Your task to perform on an android device: change the upload size in google photos Image 0: 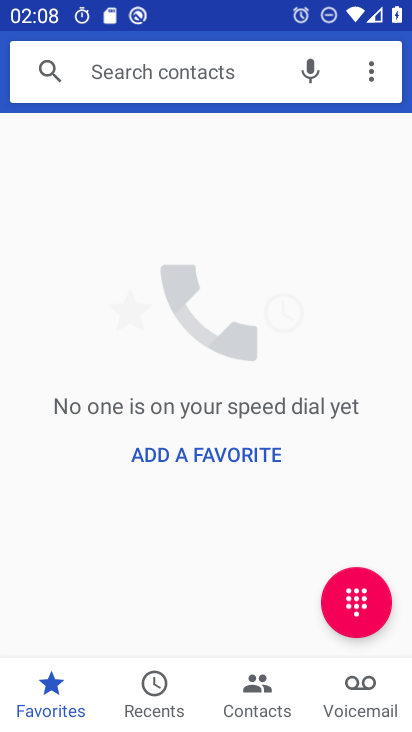
Step 0: press home button
Your task to perform on an android device: change the upload size in google photos Image 1: 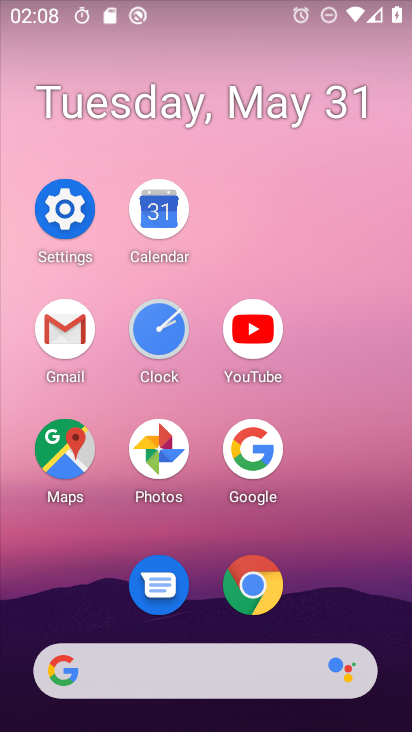
Step 1: click (150, 444)
Your task to perform on an android device: change the upload size in google photos Image 2: 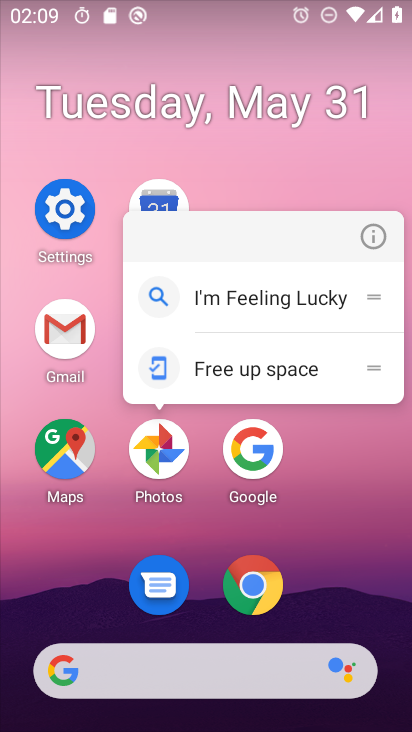
Step 2: click (147, 460)
Your task to perform on an android device: change the upload size in google photos Image 3: 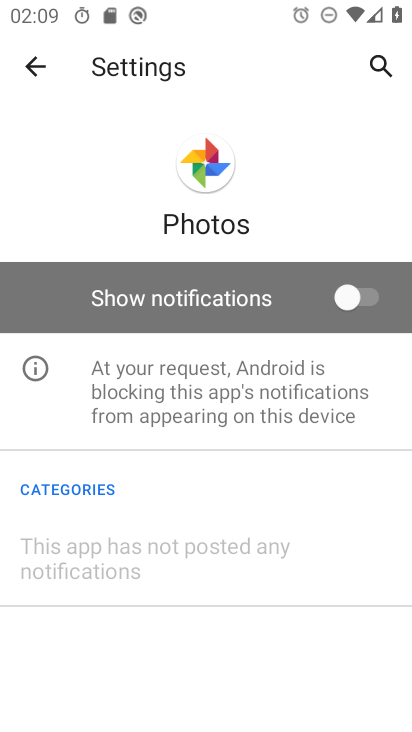
Step 3: click (36, 81)
Your task to perform on an android device: change the upload size in google photos Image 4: 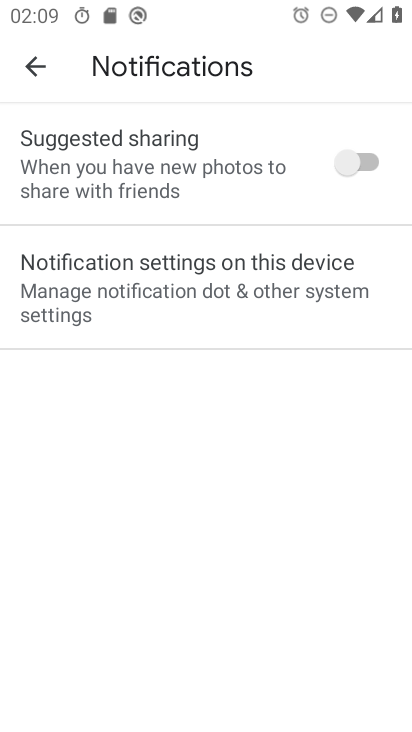
Step 4: click (27, 97)
Your task to perform on an android device: change the upload size in google photos Image 5: 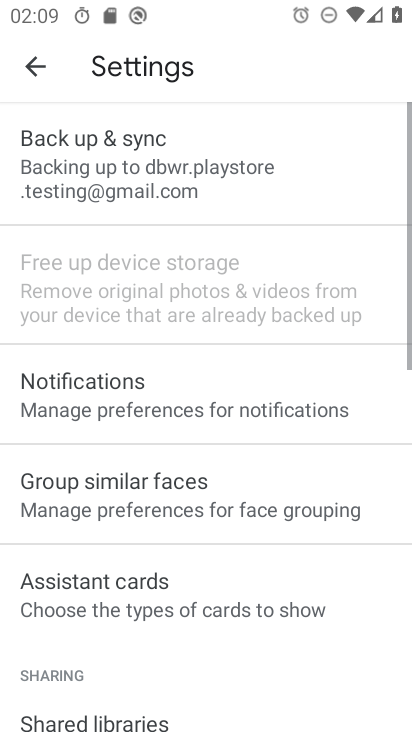
Step 5: click (157, 159)
Your task to perform on an android device: change the upload size in google photos Image 6: 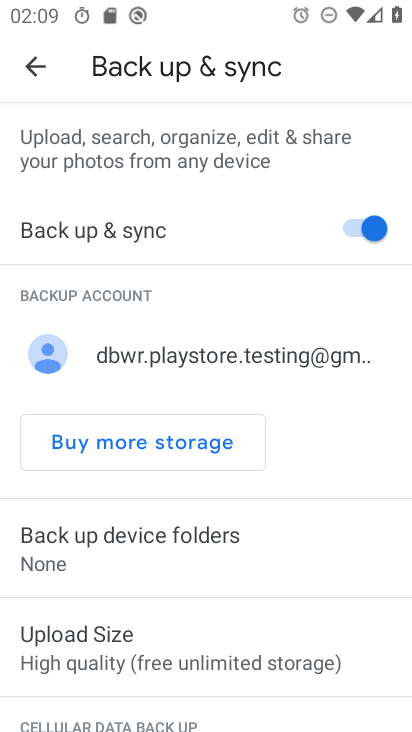
Step 6: click (232, 633)
Your task to perform on an android device: change the upload size in google photos Image 7: 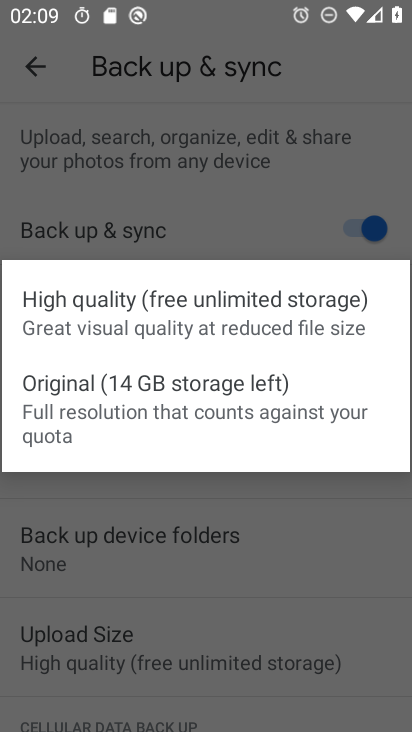
Step 7: click (284, 399)
Your task to perform on an android device: change the upload size in google photos Image 8: 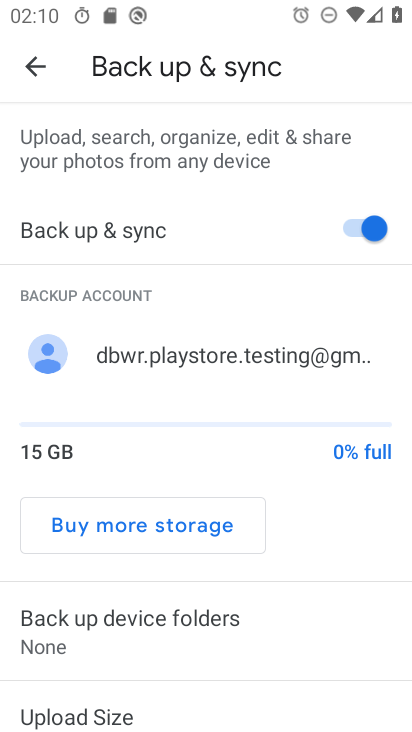
Step 8: task complete